Your task to perform on an android device: Open ESPN.com Image 0: 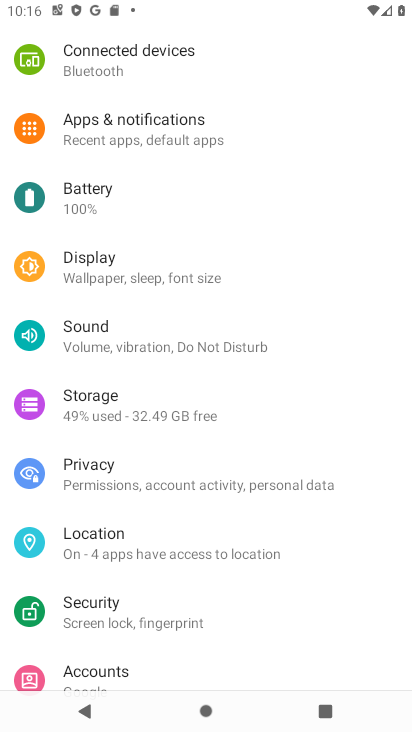
Step 0: press home button
Your task to perform on an android device: Open ESPN.com Image 1: 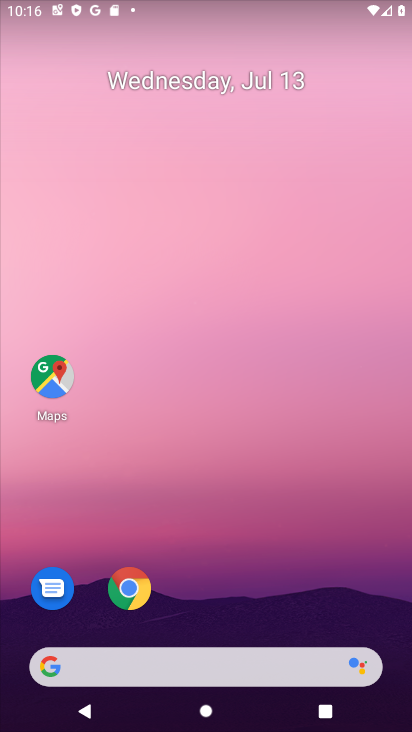
Step 1: drag from (228, 586) to (279, 60)
Your task to perform on an android device: Open ESPN.com Image 2: 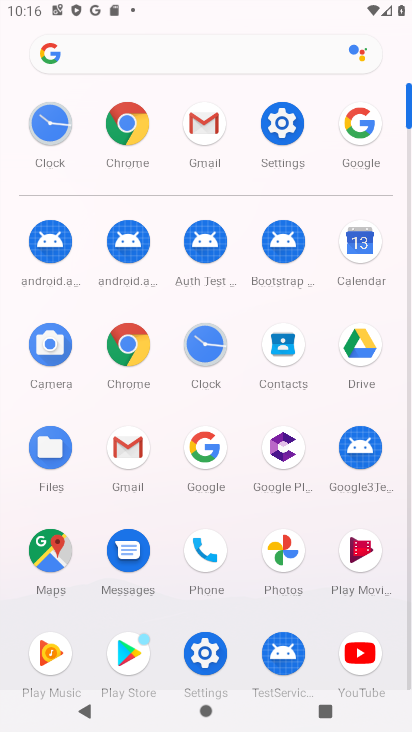
Step 2: click (206, 443)
Your task to perform on an android device: Open ESPN.com Image 3: 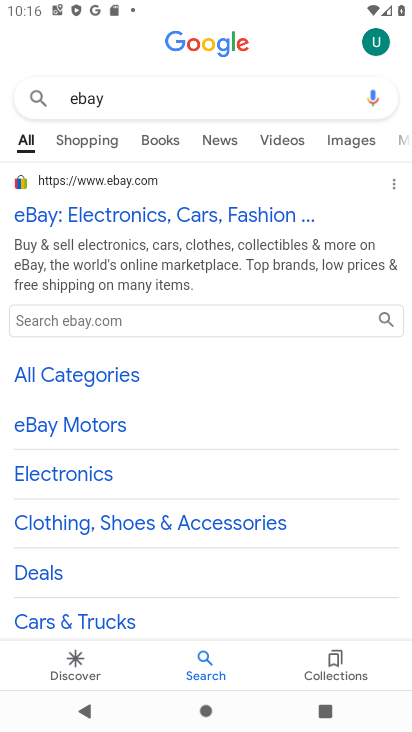
Step 3: click (252, 91)
Your task to perform on an android device: Open ESPN.com Image 4: 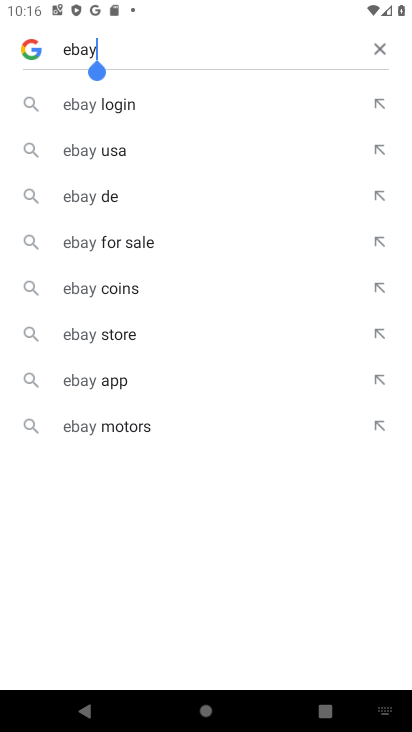
Step 4: click (378, 44)
Your task to perform on an android device: Open ESPN.com Image 5: 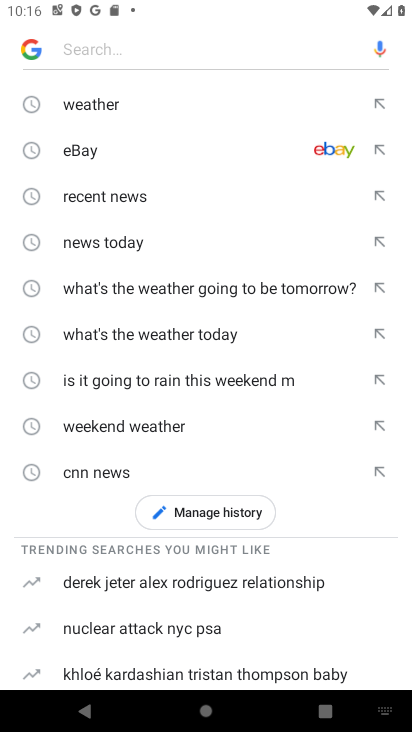
Step 5: type "espn.com"
Your task to perform on an android device: Open ESPN.com Image 6: 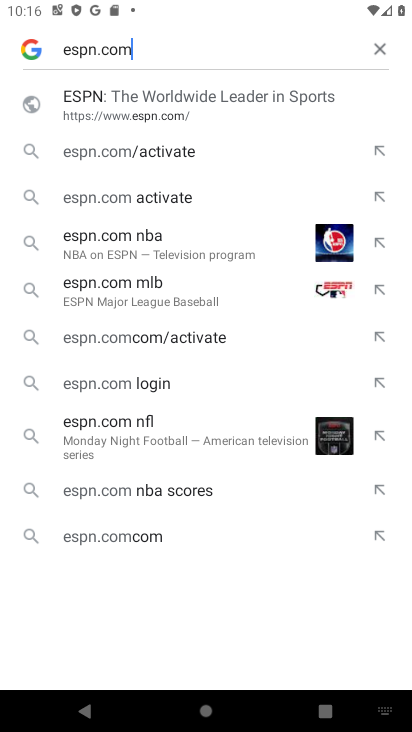
Step 6: click (163, 114)
Your task to perform on an android device: Open ESPN.com Image 7: 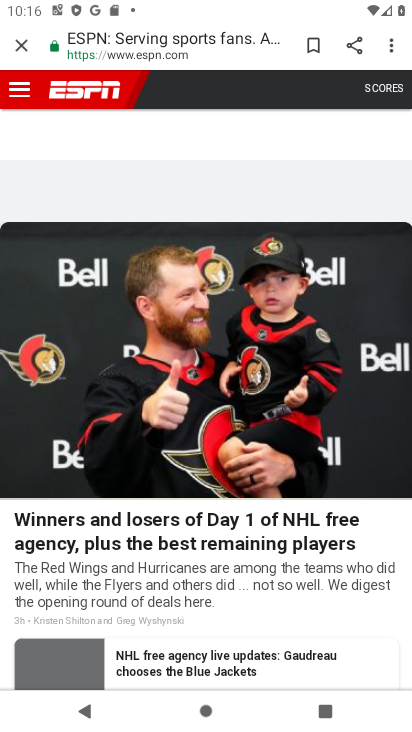
Step 7: task complete